Your task to perform on an android device: turn vacation reply on in the gmail app Image 0: 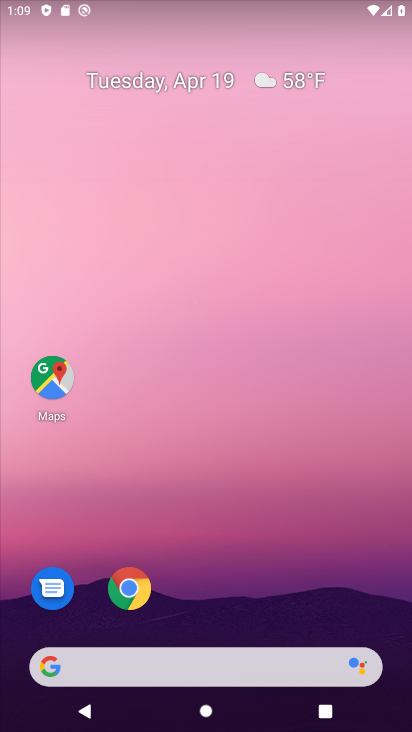
Step 0: drag from (329, 592) to (367, 95)
Your task to perform on an android device: turn vacation reply on in the gmail app Image 1: 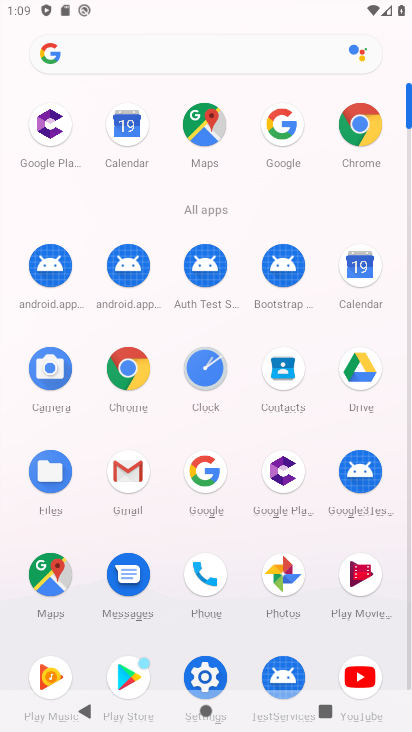
Step 1: click (128, 467)
Your task to perform on an android device: turn vacation reply on in the gmail app Image 2: 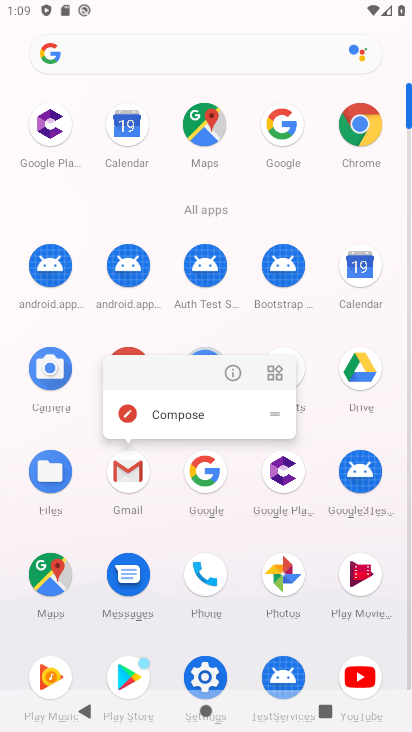
Step 2: click (128, 467)
Your task to perform on an android device: turn vacation reply on in the gmail app Image 3: 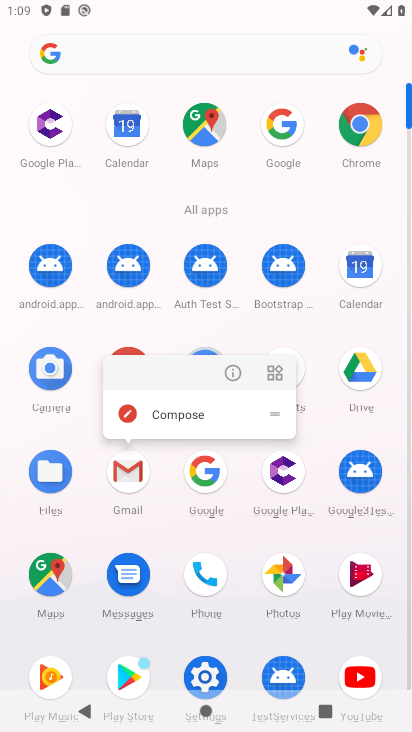
Step 3: click (128, 466)
Your task to perform on an android device: turn vacation reply on in the gmail app Image 4: 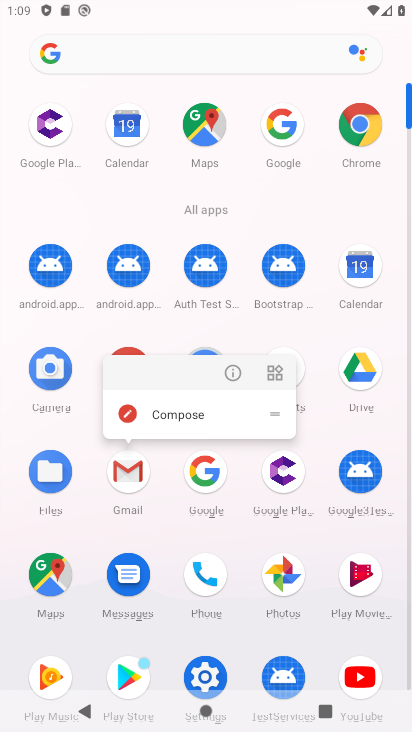
Step 4: click (128, 466)
Your task to perform on an android device: turn vacation reply on in the gmail app Image 5: 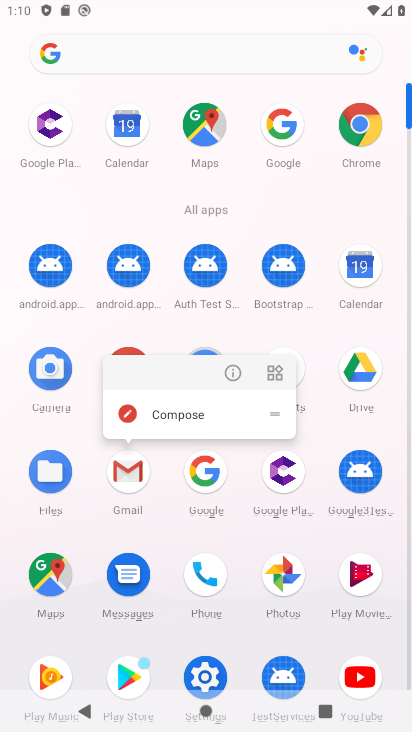
Step 5: click (128, 461)
Your task to perform on an android device: turn vacation reply on in the gmail app Image 6: 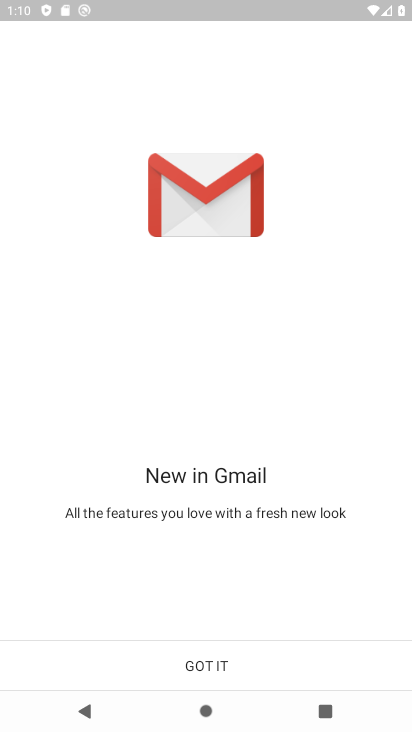
Step 6: click (217, 651)
Your task to perform on an android device: turn vacation reply on in the gmail app Image 7: 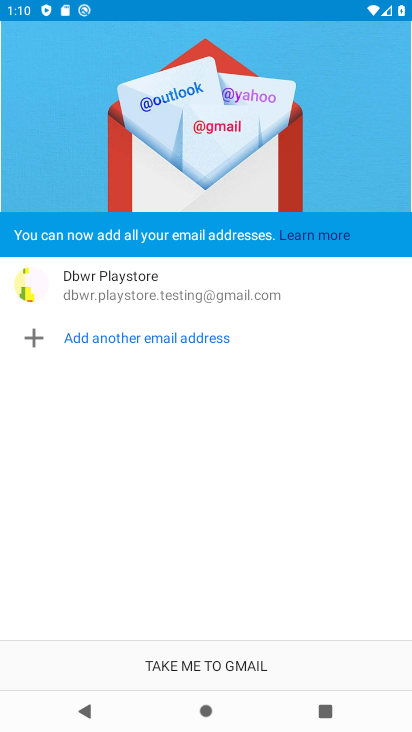
Step 7: click (219, 665)
Your task to perform on an android device: turn vacation reply on in the gmail app Image 8: 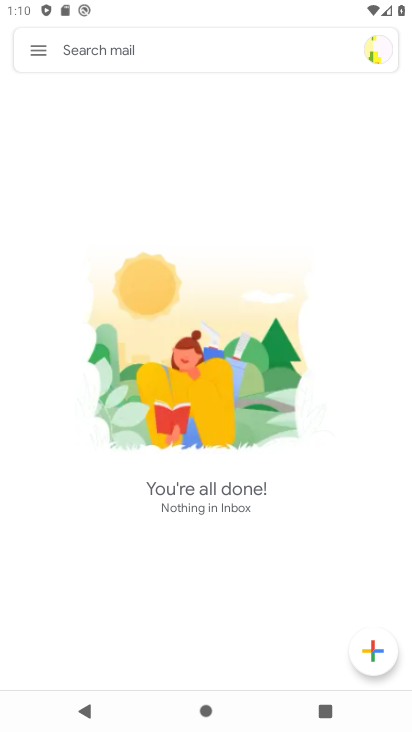
Step 8: click (39, 48)
Your task to perform on an android device: turn vacation reply on in the gmail app Image 9: 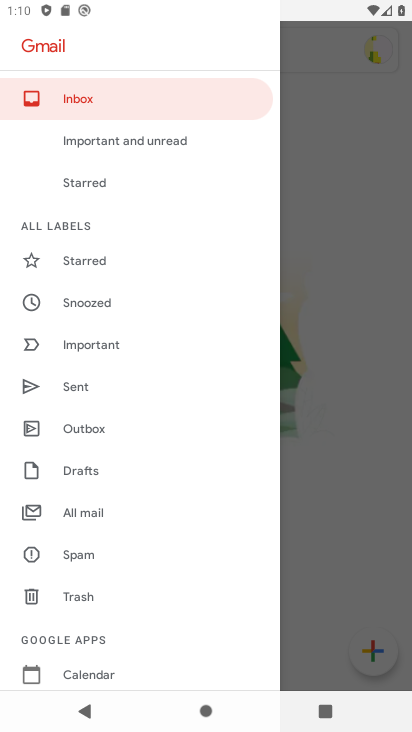
Step 9: drag from (161, 606) to (204, 243)
Your task to perform on an android device: turn vacation reply on in the gmail app Image 10: 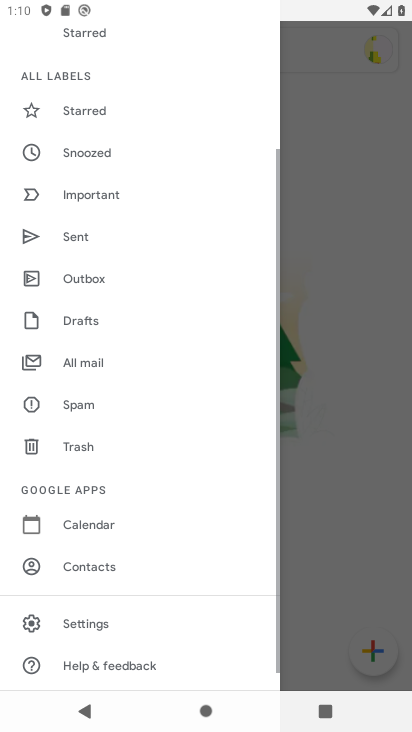
Step 10: click (98, 622)
Your task to perform on an android device: turn vacation reply on in the gmail app Image 11: 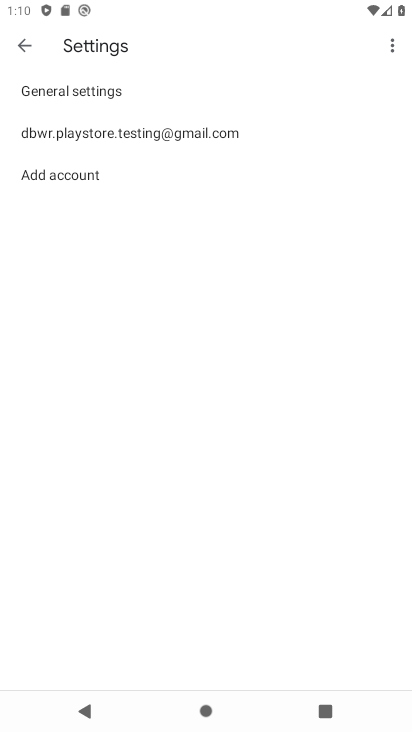
Step 11: click (206, 130)
Your task to perform on an android device: turn vacation reply on in the gmail app Image 12: 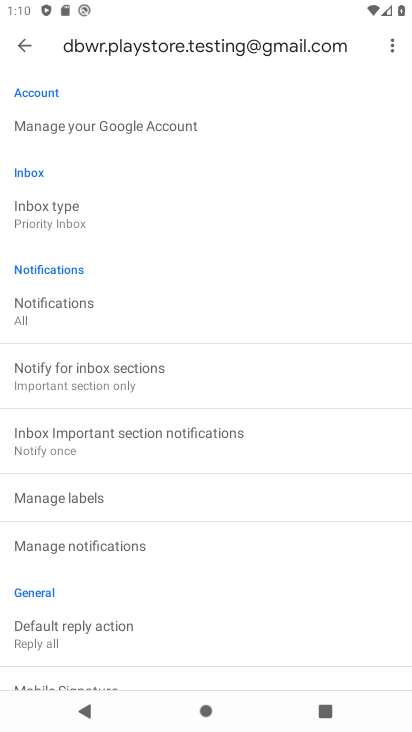
Step 12: drag from (178, 585) to (234, 129)
Your task to perform on an android device: turn vacation reply on in the gmail app Image 13: 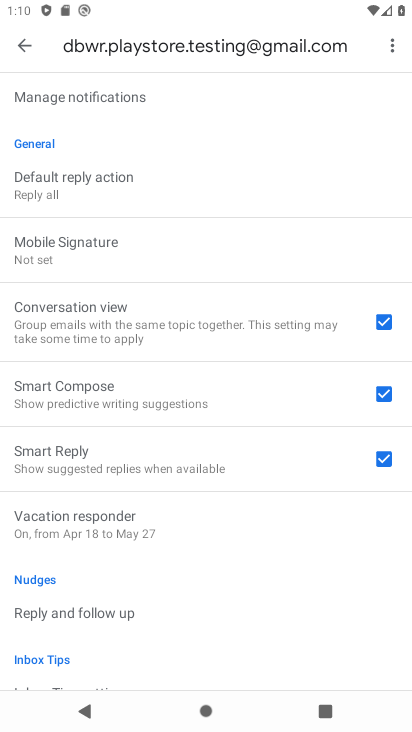
Step 13: click (211, 528)
Your task to perform on an android device: turn vacation reply on in the gmail app Image 14: 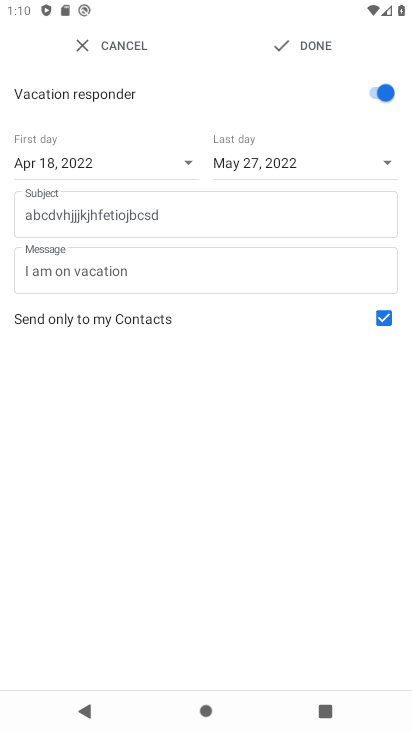
Step 14: task complete